Your task to perform on an android device: open the mobile data screen to see how much data has been used Image 0: 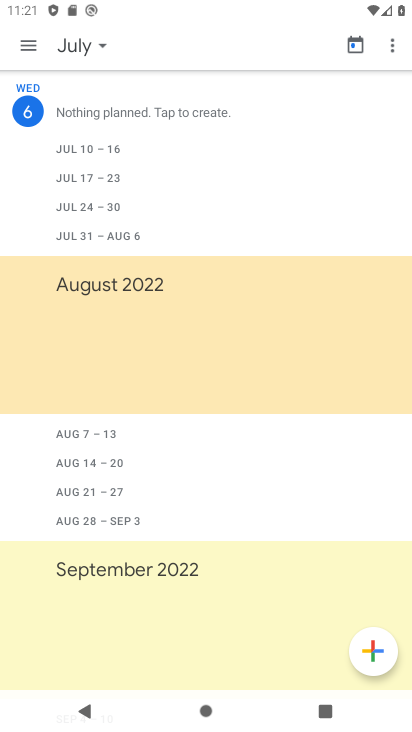
Step 0: drag from (135, 253) to (269, 713)
Your task to perform on an android device: open the mobile data screen to see how much data has been used Image 1: 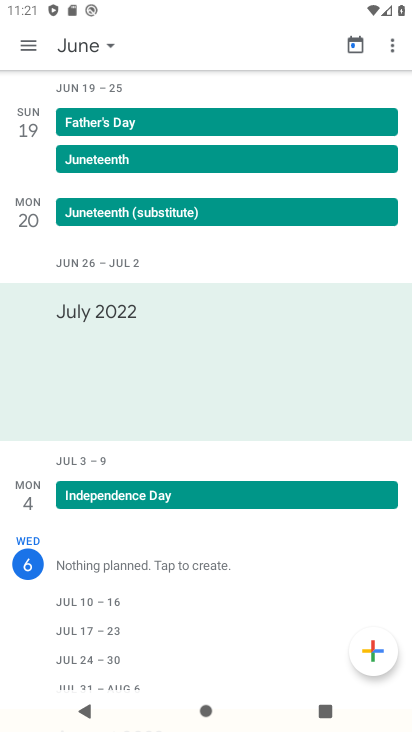
Step 1: press home button
Your task to perform on an android device: open the mobile data screen to see how much data has been used Image 2: 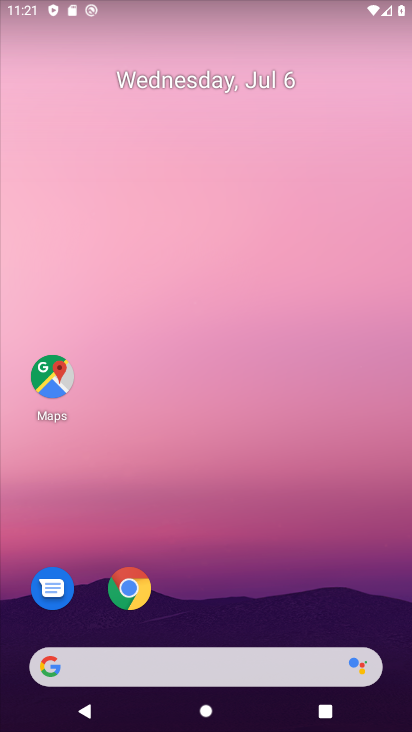
Step 2: drag from (225, 475) to (279, 228)
Your task to perform on an android device: open the mobile data screen to see how much data has been used Image 3: 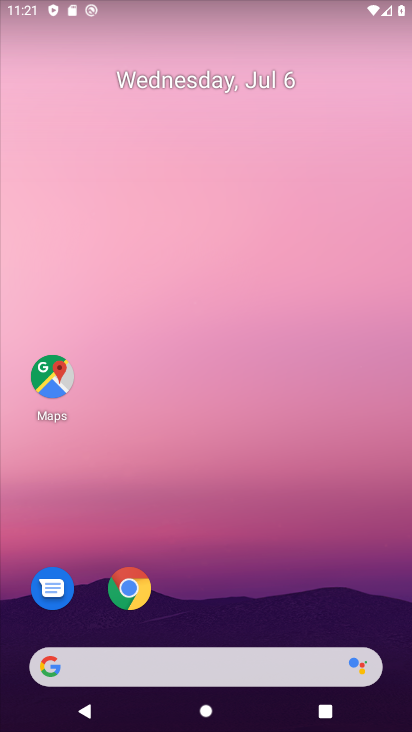
Step 3: drag from (204, 583) to (239, 312)
Your task to perform on an android device: open the mobile data screen to see how much data has been used Image 4: 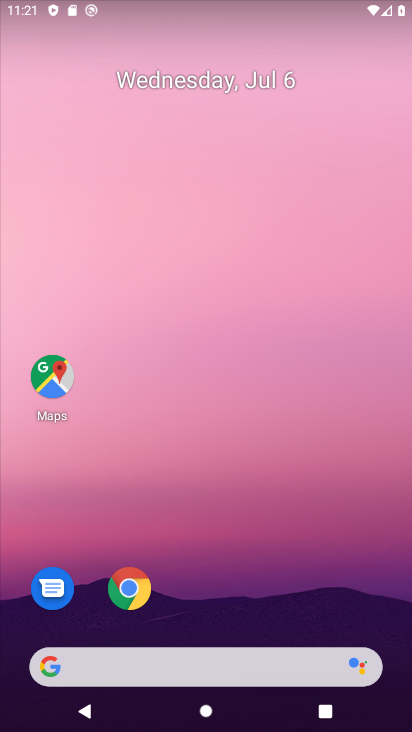
Step 4: drag from (211, 592) to (319, 1)
Your task to perform on an android device: open the mobile data screen to see how much data has been used Image 5: 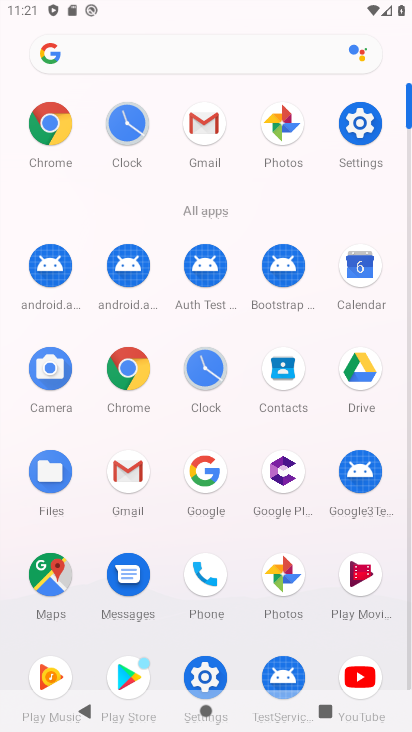
Step 5: click (349, 125)
Your task to perform on an android device: open the mobile data screen to see how much data has been used Image 6: 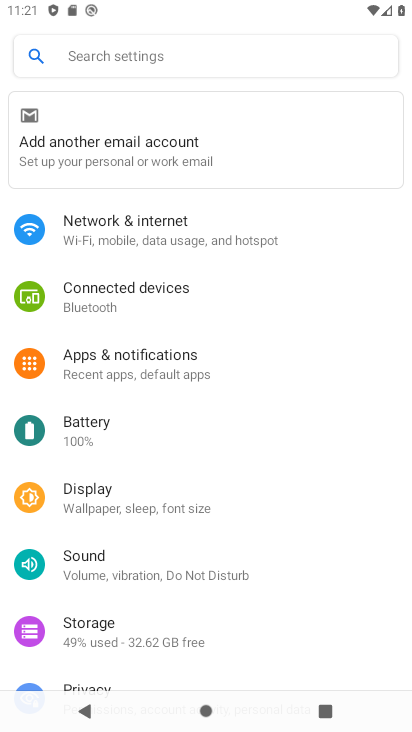
Step 6: drag from (201, 422) to (249, 195)
Your task to perform on an android device: open the mobile data screen to see how much data has been used Image 7: 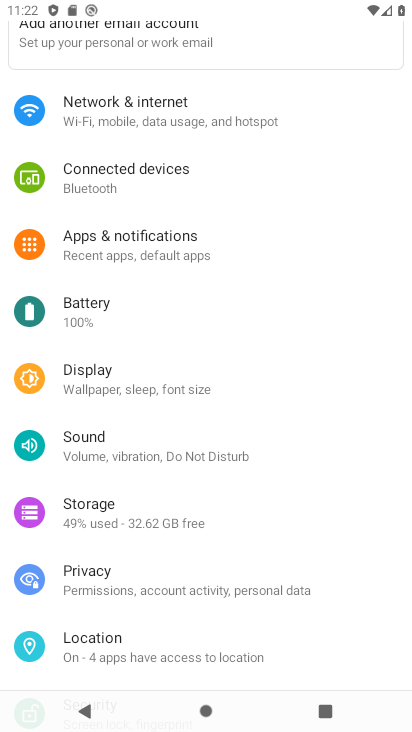
Step 7: click (142, 116)
Your task to perform on an android device: open the mobile data screen to see how much data has been used Image 8: 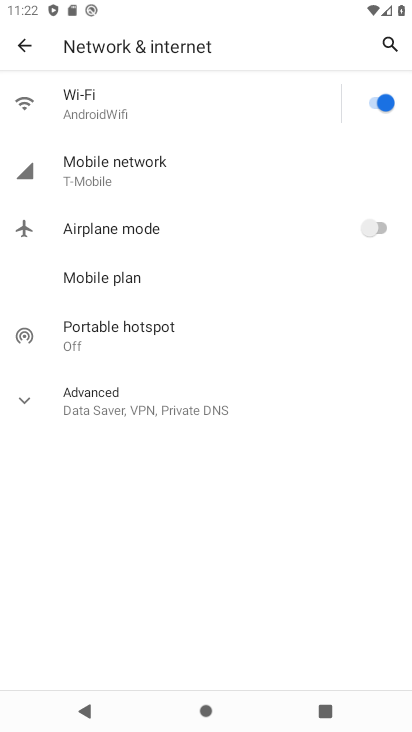
Step 8: click (153, 172)
Your task to perform on an android device: open the mobile data screen to see how much data has been used Image 9: 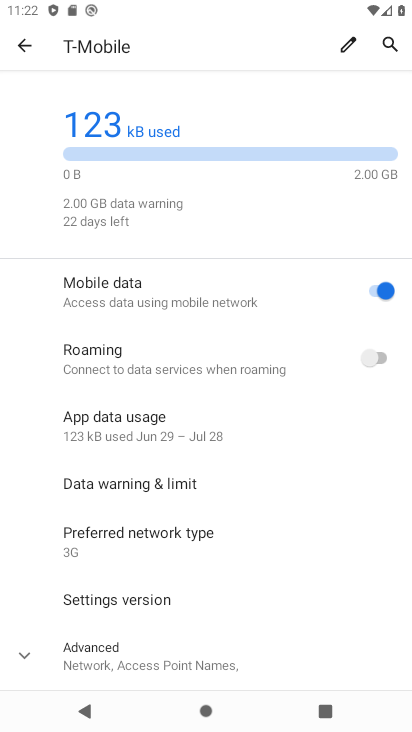
Step 9: click (165, 429)
Your task to perform on an android device: open the mobile data screen to see how much data has been used Image 10: 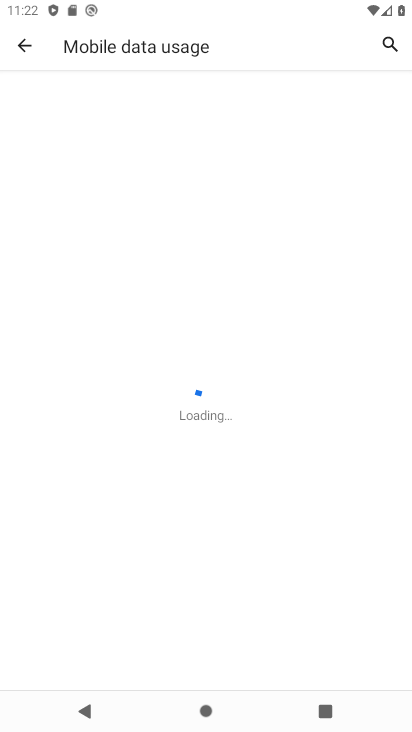
Step 10: task complete